Your task to perform on an android device: turn pop-ups off in chrome Image 0: 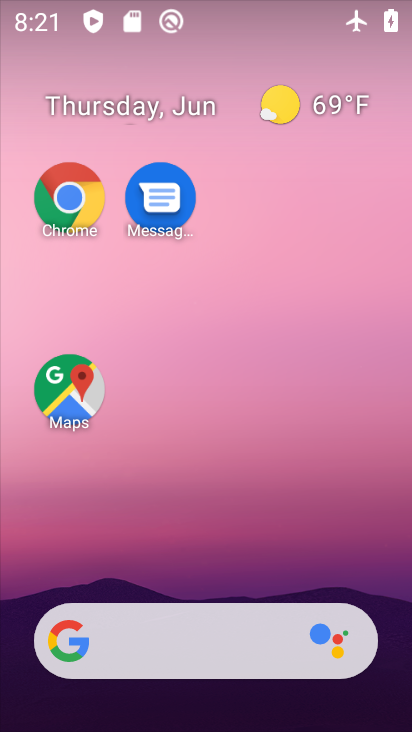
Step 0: click (77, 198)
Your task to perform on an android device: turn pop-ups off in chrome Image 1: 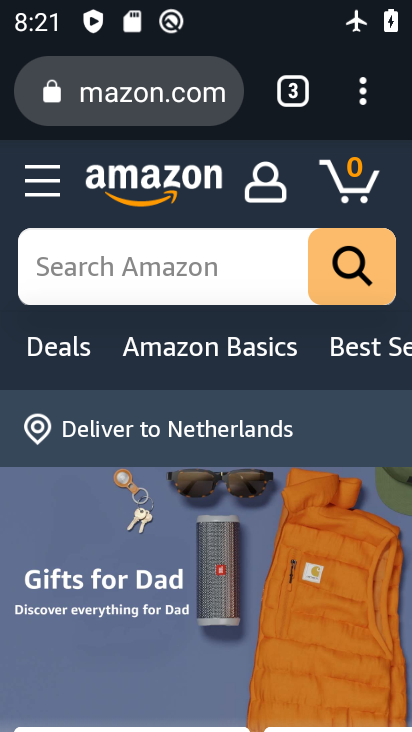
Step 1: click (354, 93)
Your task to perform on an android device: turn pop-ups off in chrome Image 2: 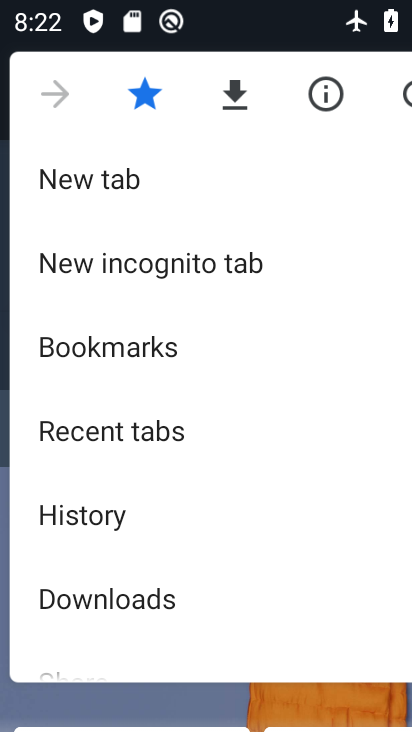
Step 2: drag from (215, 566) to (155, 172)
Your task to perform on an android device: turn pop-ups off in chrome Image 3: 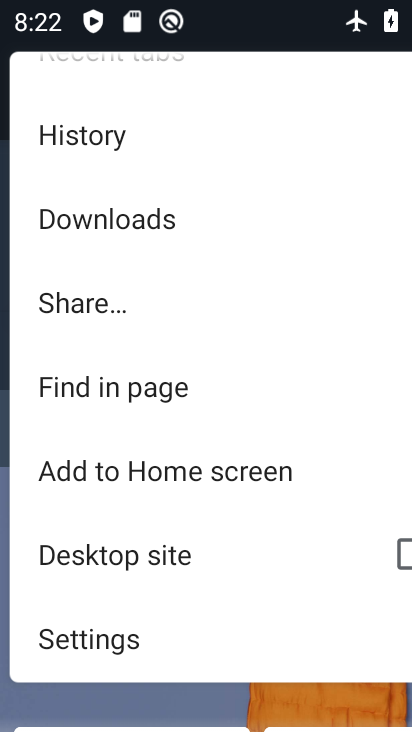
Step 3: click (98, 628)
Your task to perform on an android device: turn pop-ups off in chrome Image 4: 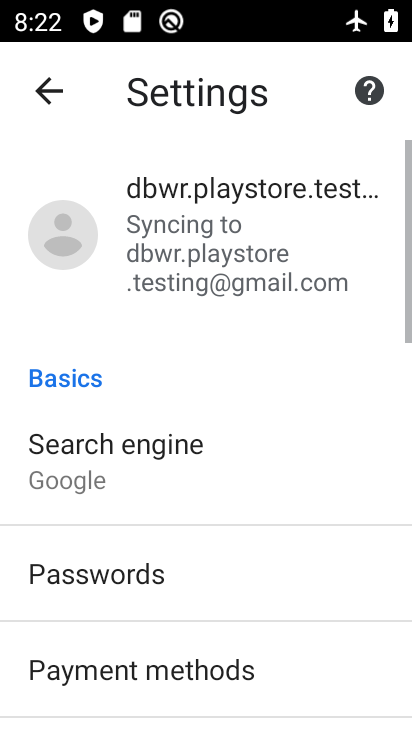
Step 4: drag from (98, 628) to (50, 223)
Your task to perform on an android device: turn pop-ups off in chrome Image 5: 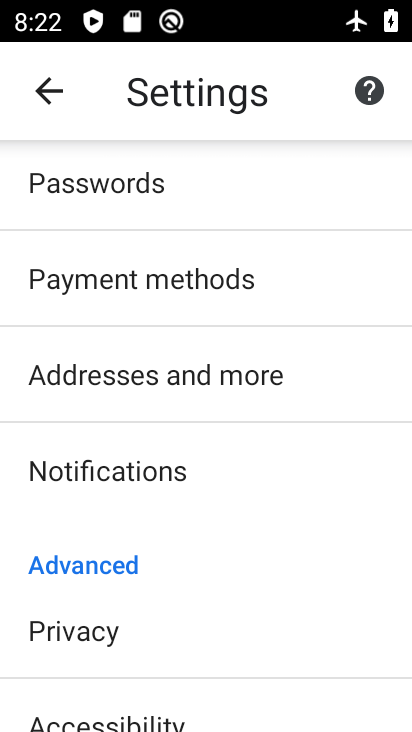
Step 5: drag from (218, 624) to (131, 183)
Your task to perform on an android device: turn pop-ups off in chrome Image 6: 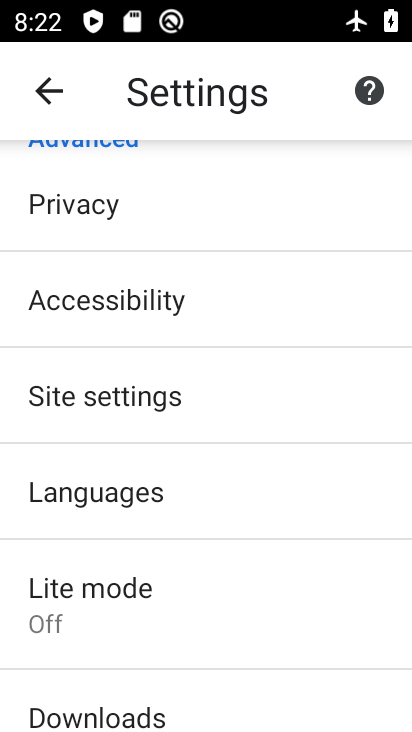
Step 6: click (105, 401)
Your task to perform on an android device: turn pop-ups off in chrome Image 7: 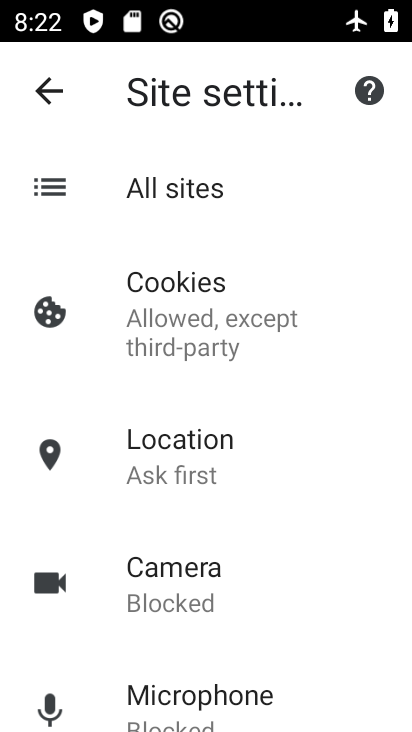
Step 7: drag from (144, 615) to (65, 220)
Your task to perform on an android device: turn pop-ups off in chrome Image 8: 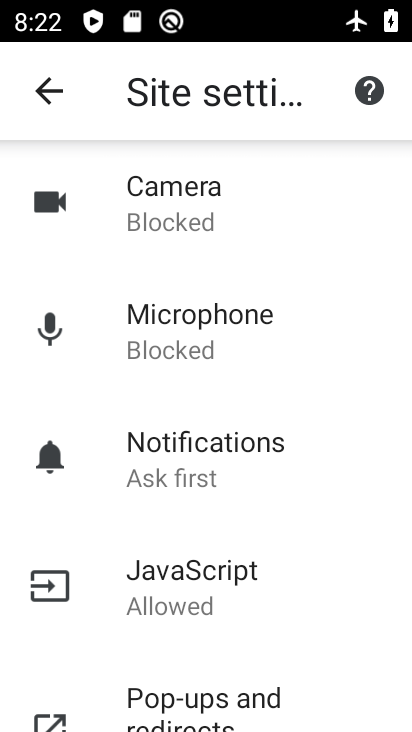
Step 8: click (163, 698)
Your task to perform on an android device: turn pop-ups off in chrome Image 9: 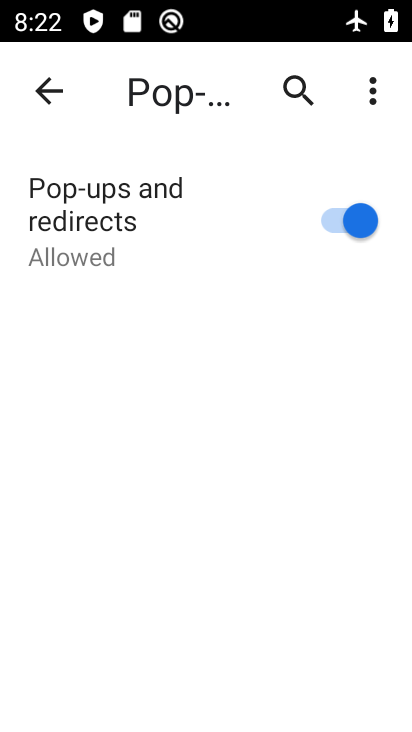
Step 9: click (341, 241)
Your task to perform on an android device: turn pop-ups off in chrome Image 10: 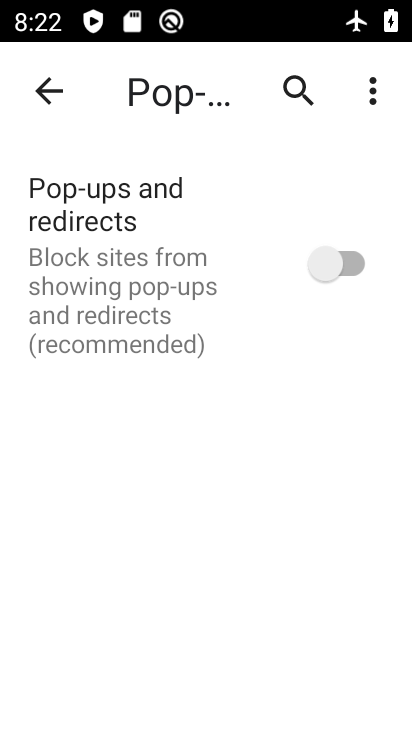
Step 10: task complete